Your task to perform on an android device: turn on location history Image 0: 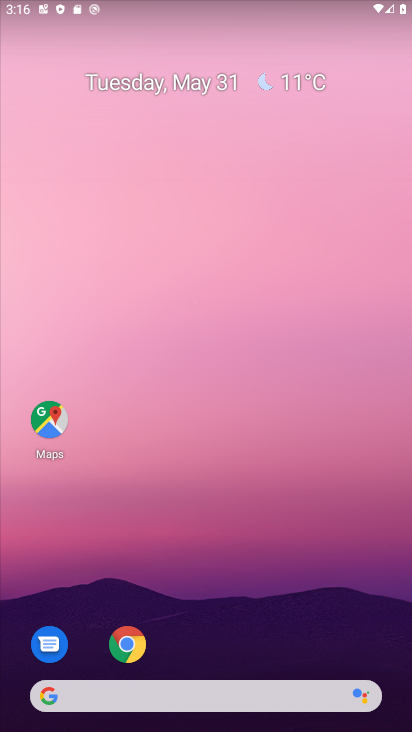
Step 0: click (311, 557)
Your task to perform on an android device: turn on location history Image 1: 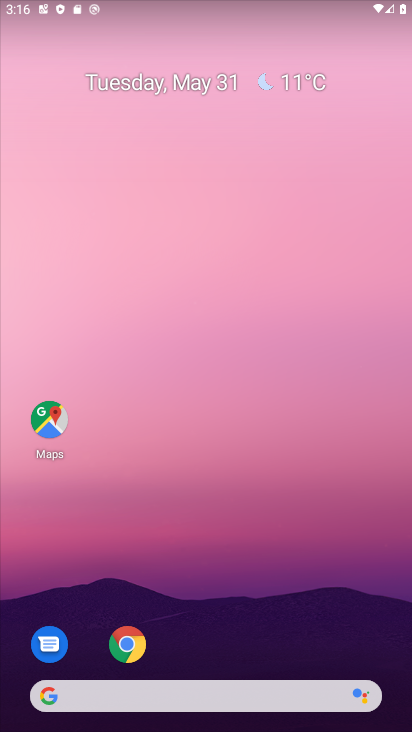
Step 1: drag from (353, 671) to (350, 43)
Your task to perform on an android device: turn on location history Image 2: 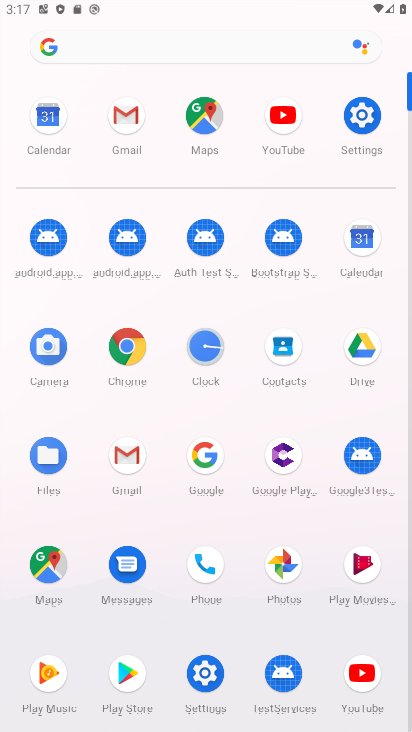
Step 2: click (363, 113)
Your task to perform on an android device: turn on location history Image 3: 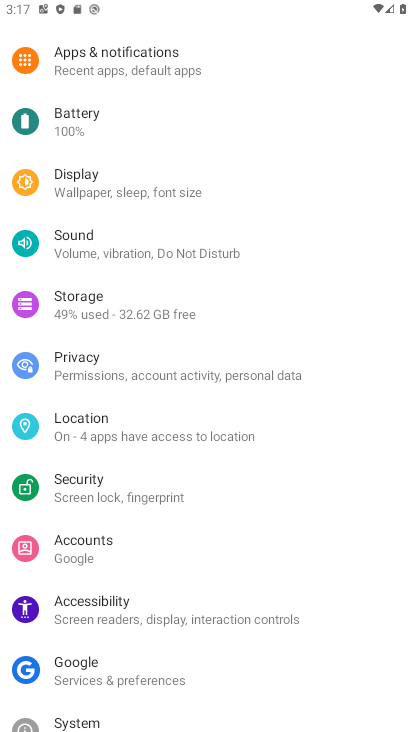
Step 3: click (204, 65)
Your task to perform on an android device: turn on location history Image 4: 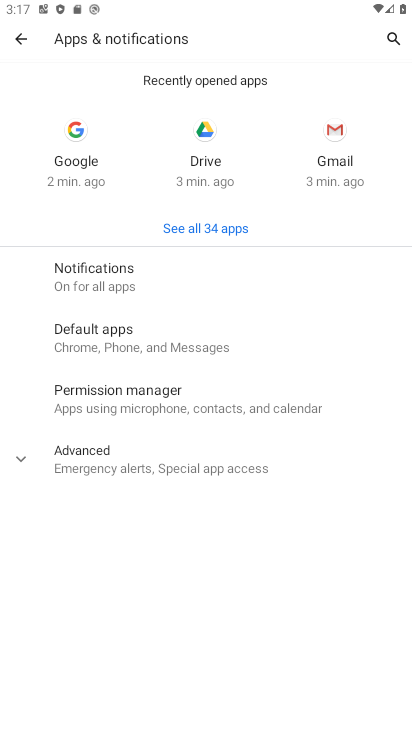
Step 4: press back button
Your task to perform on an android device: turn on location history Image 5: 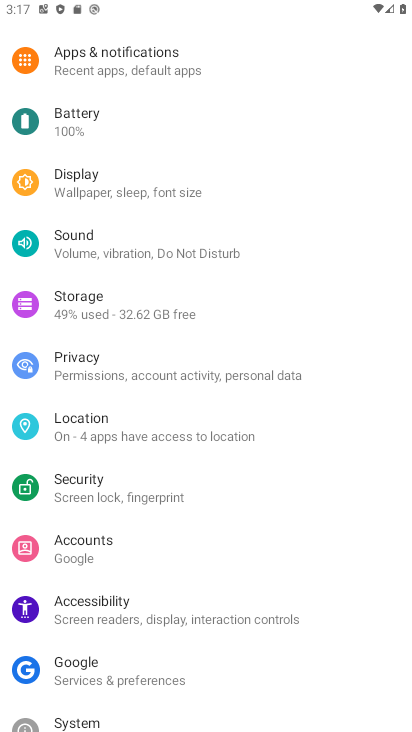
Step 5: click (158, 435)
Your task to perform on an android device: turn on location history Image 6: 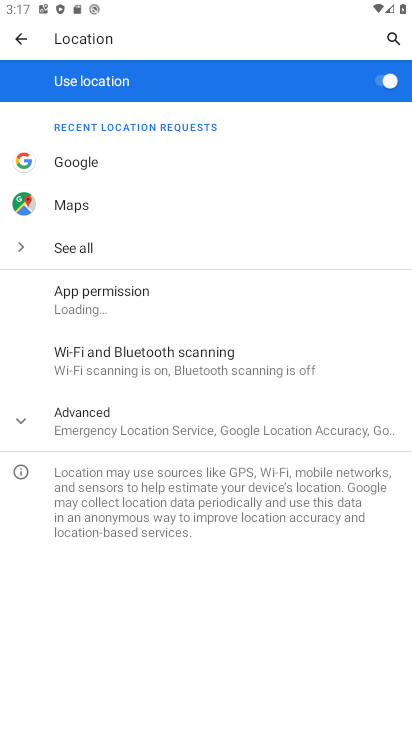
Step 6: click (118, 432)
Your task to perform on an android device: turn on location history Image 7: 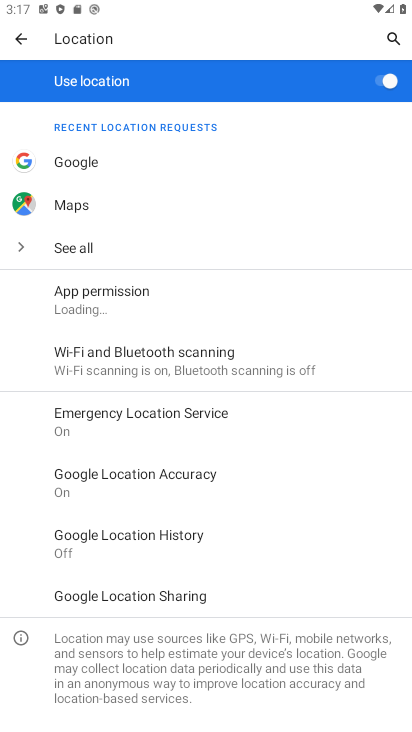
Step 7: click (159, 546)
Your task to perform on an android device: turn on location history Image 8: 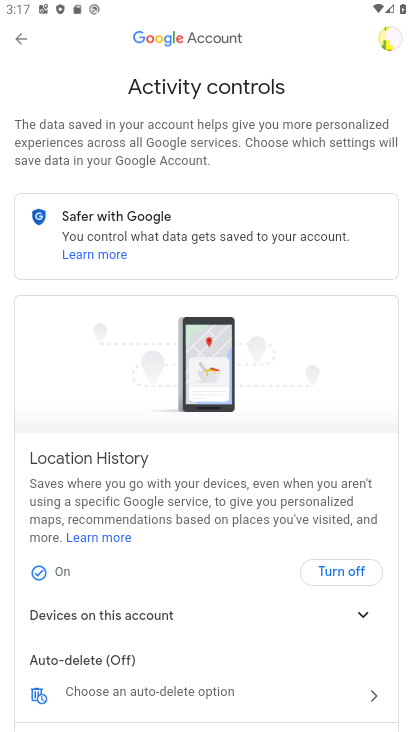
Step 8: click (34, 566)
Your task to perform on an android device: turn on location history Image 9: 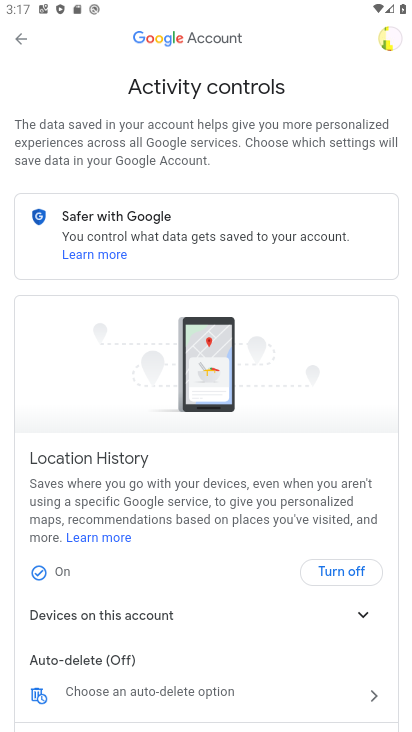
Step 9: click (326, 567)
Your task to perform on an android device: turn on location history Image 10: 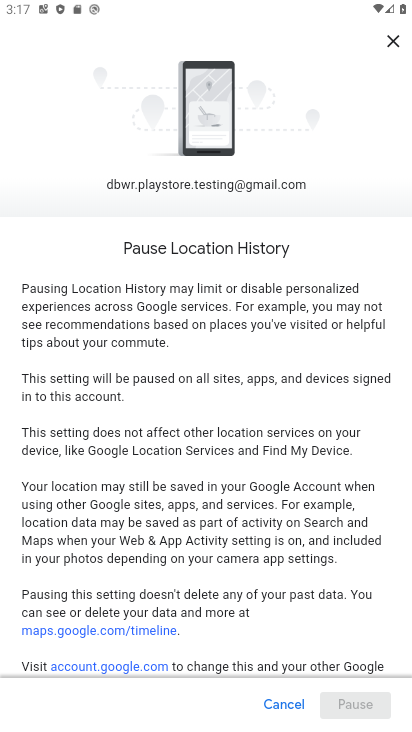
Step 10: click (286, 703)
Your task to perform on an android device: turn on location history Image 11: 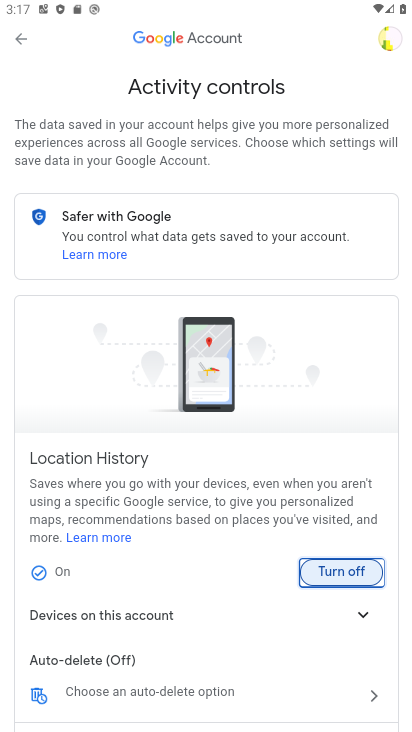
Step 11: task complete